Your task to perform on an android device: change the clock display to digital Image 0: 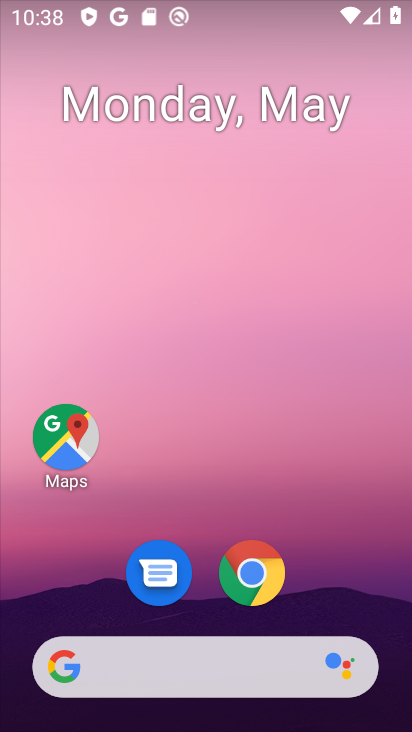
Step 0: drag from (202, 601) to (299, 61)
Your task to perform on an android device: change the clock display to digital Image 1: 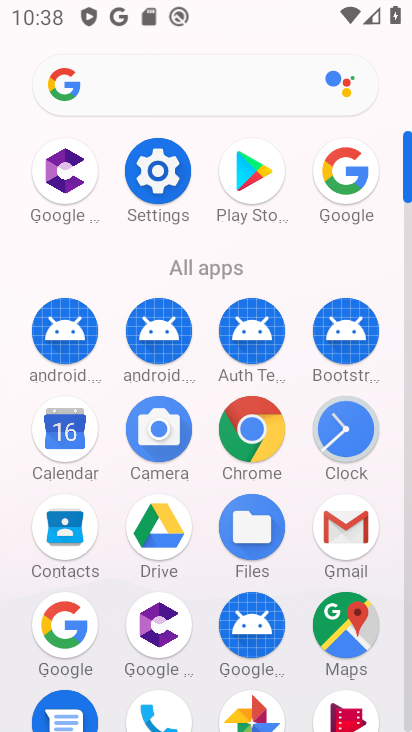
Step 1: click (355, 436)
Your task to perform on an android device: change the clock display to digital Image 2: 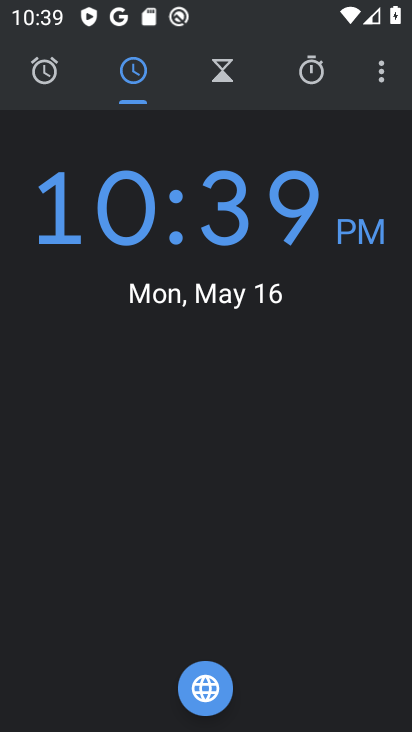
Step 2: click (374, 73)
Your task to perform on an android device: change the clock display to digital Image 3: 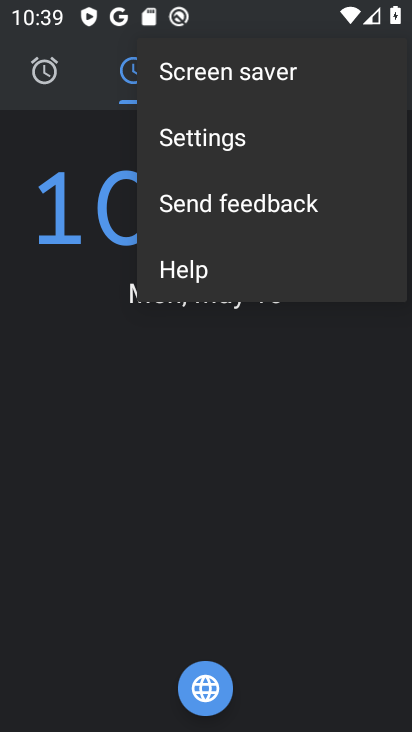
Step 3: click (237, 136)
Your task to perform on an android device: change the clock display to digital Image 4: 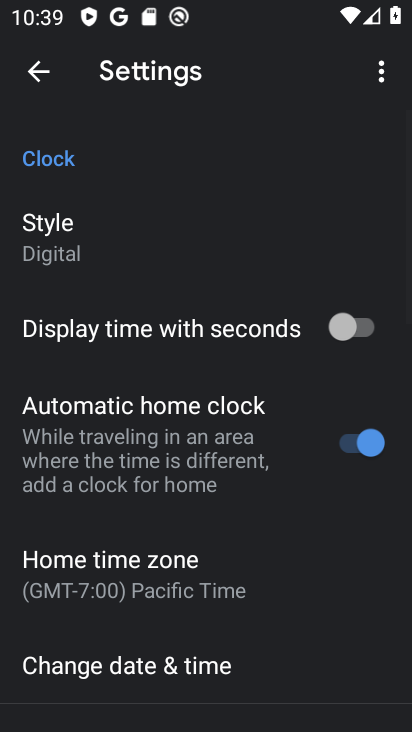
Step 4: click (87, 240)
Your task to perform on an android device: change the clock display to digital Image 5: 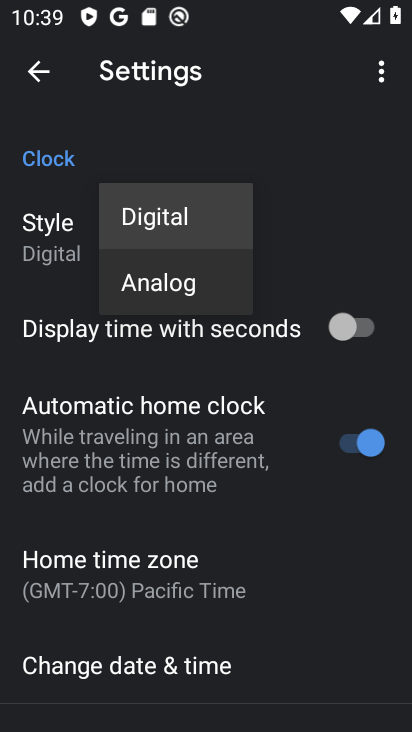
Step 5: click (151, 225)
Your task to perform on an android device: change the clock display to digital Image 6: 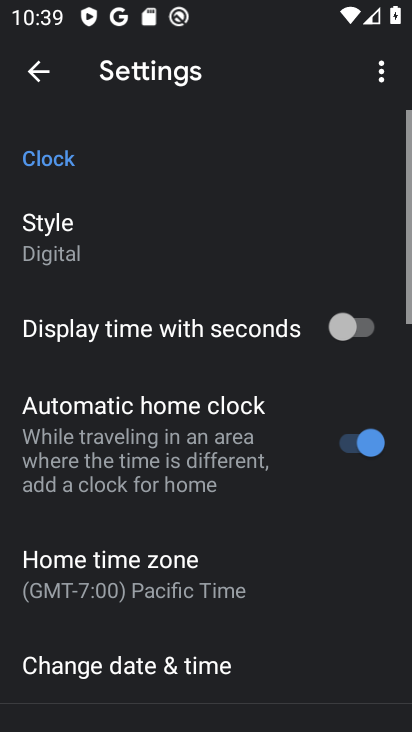
Step 6: task complete